Your task to perform on an android device: open sync settings in chrome Image 0: 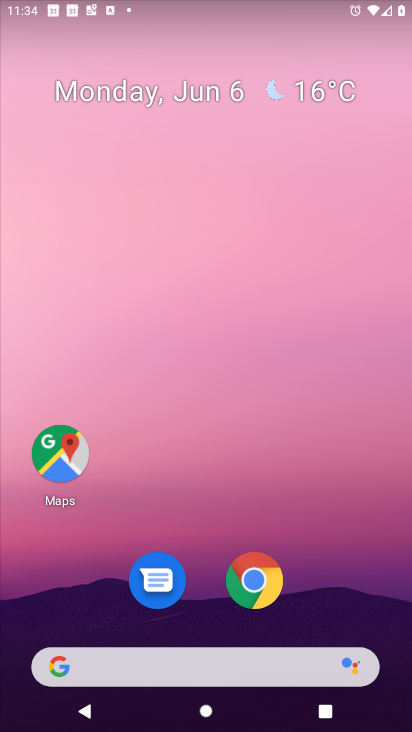
Step 0: drag from (336, 608) to (276, 1)
Your task to perform on an android device: open sync settings in chrome Image 1: 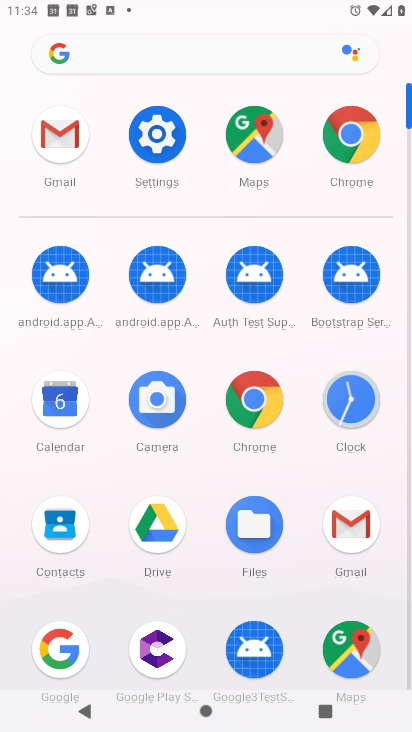
Step 1: click (348, 136)
Your task to perform on an android device: open sync settings in chrome Image 2: 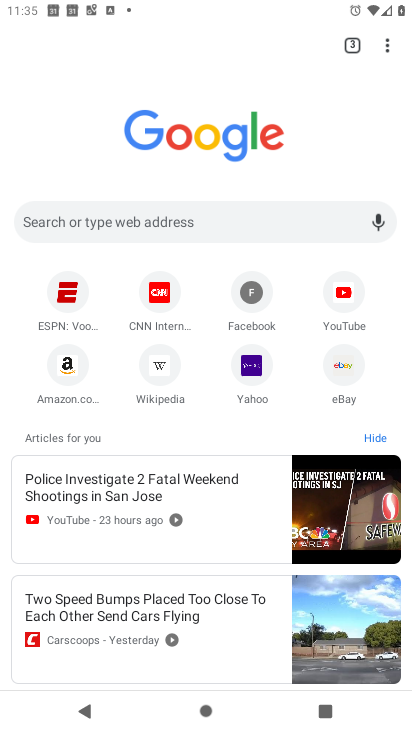
Step 2: drag from (379, 61) to (231, 371)
Your task to perform on an android device: open sync settings in chrome Image 3: 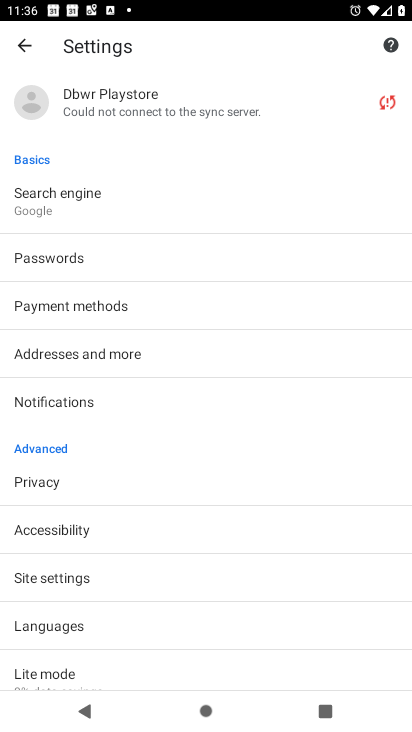
Step 3: click (106, 585)
Your task to perform on an android device: open sync settings in chrome Image 4: 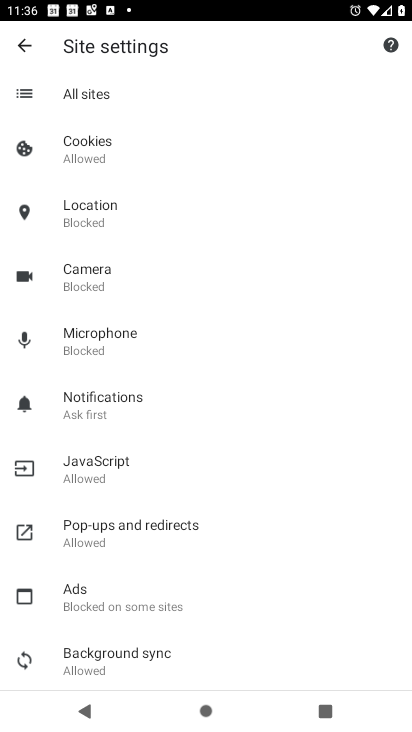
Step 4: click (158, 661)
Your task to perform on an android device: open sync settings in chrome Image 5: 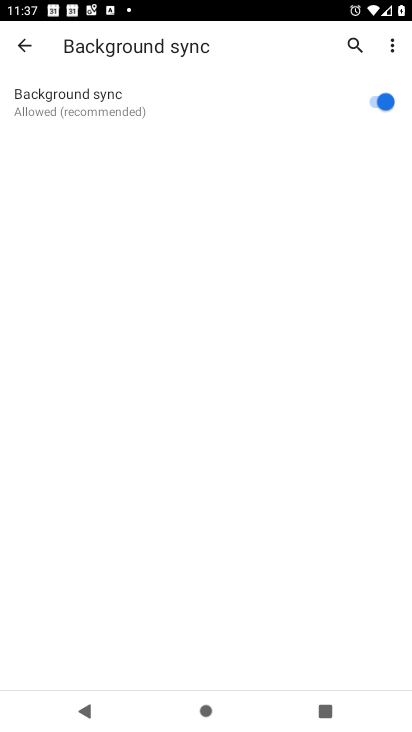
Step 5: task complete